Your task to perform on an android device: turn on javascript in the chrome app Image 0: 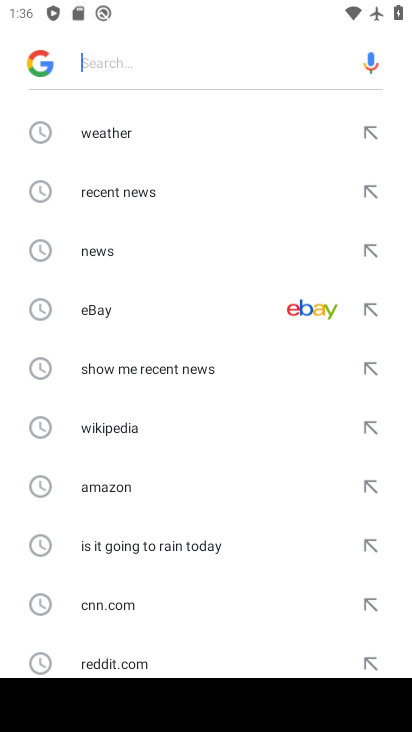
Step 0: press home button
Your task to perform on an android device: turn on javascript in the chrome app Image 1: 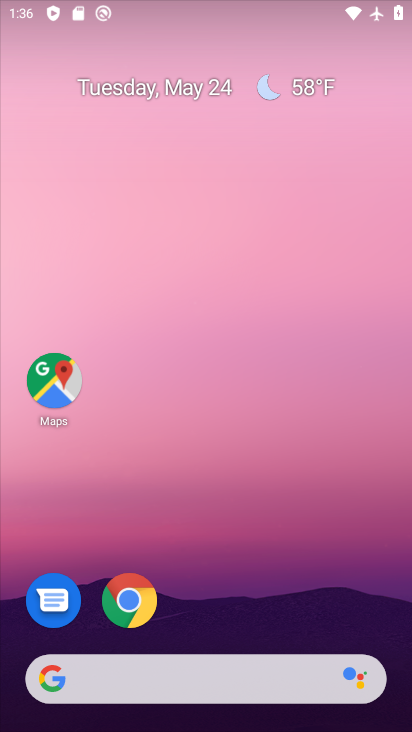
Step 1: drag from (290, 593) to (233, 58)
Your task to perform on an android device: turn on javascript in the chrome app Image 2: 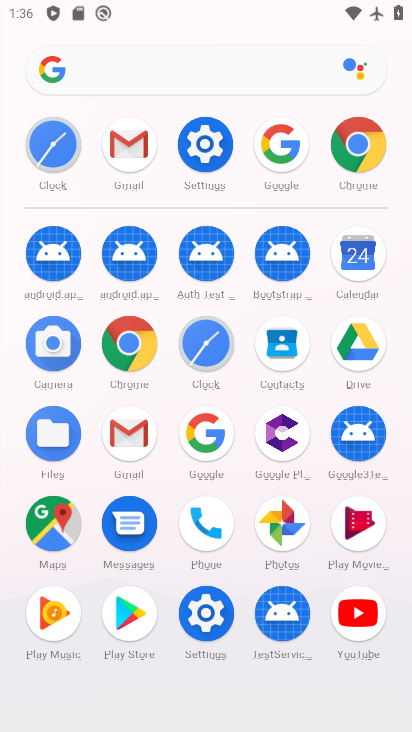
Step 2: click (134, 347)
Your task to perform on an android device: turn on javascript in the chrome app Image 3: 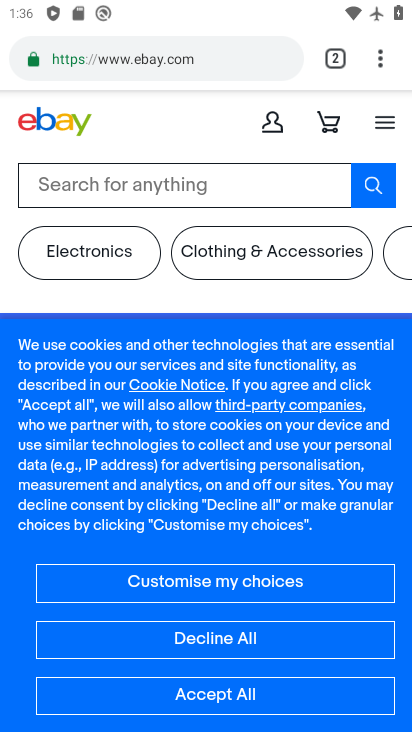
Step 3: click (382, 58)
Your task to perform on an android device: turn on javascript in the chrome app Image 4: 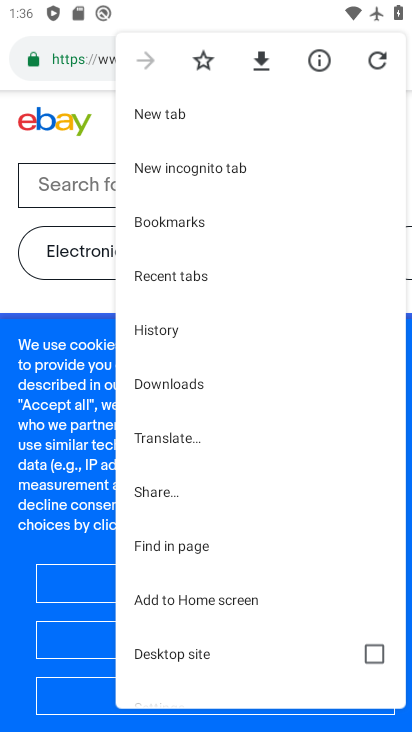
Step 4: drag from (255, 606) to (272, 301)
Your task to perform on an android device: turn on javascript in the chrome app Image 5: 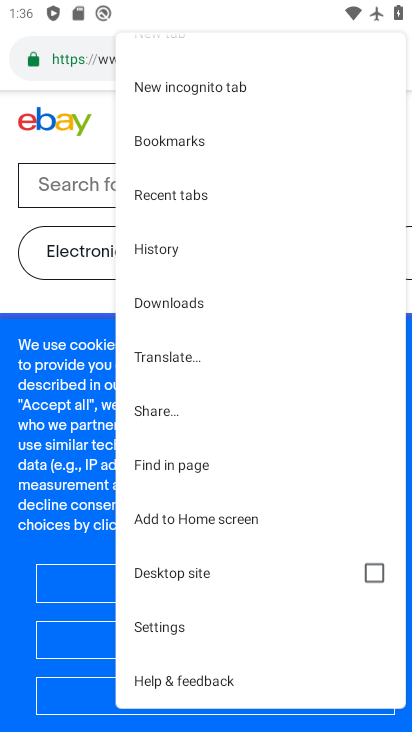
Step 5: click (197, 622)
Your task to perform on an android device: turn on javascript in the chrome app Image 6: 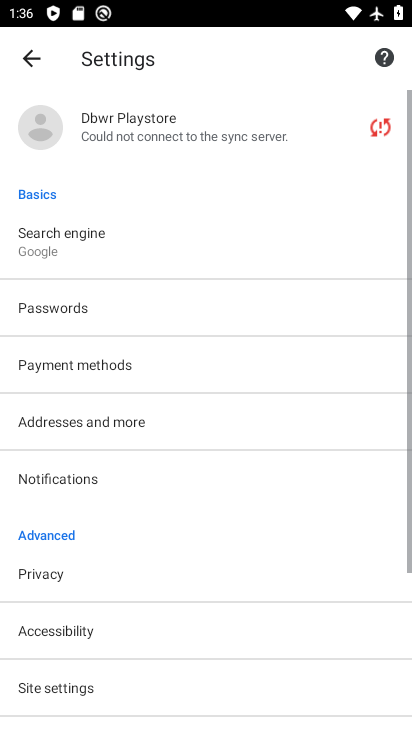
Step 6: drag from (193, 622) to (204, 287)
Your task to perform on an android device: turn on javascript in the chrome app Image 7: 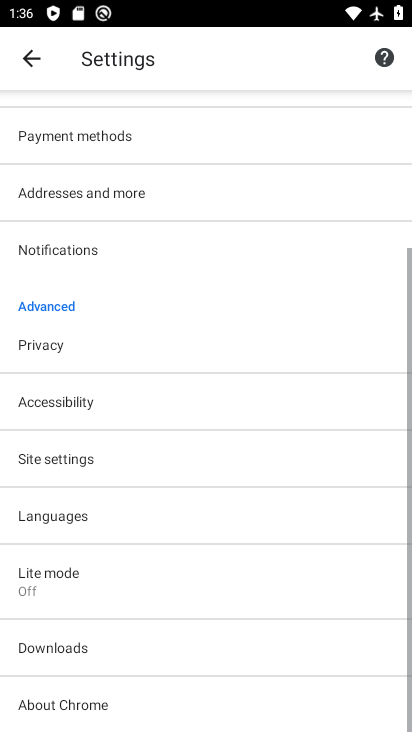
Step 7: click (98, 456)
Your task to perform on an android device: turn on javascript in the chrome app Image 8: 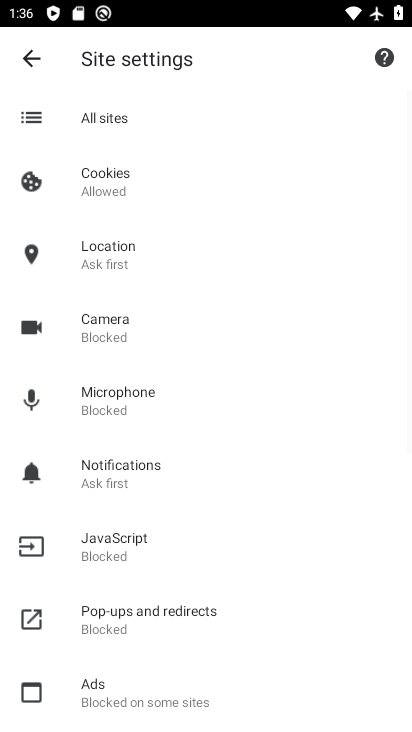
Step 8: click (124, 533)
Your task to perform on an android device: turn on javascript in the chrome app Image 9: 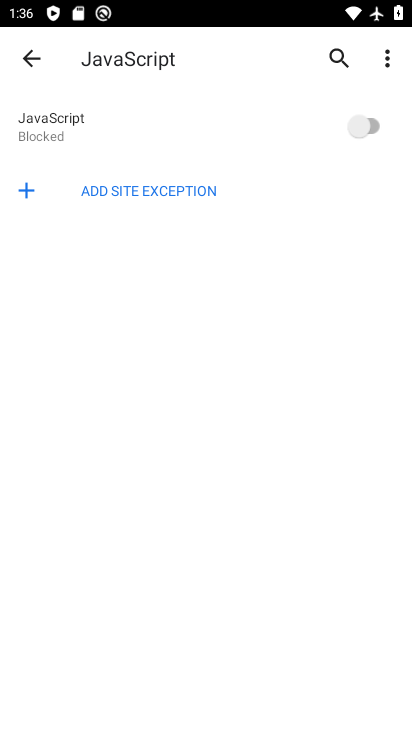
Step 9: click (364, 134)
Your task to perform on an android device: turn on javascript in the chrome app Image 10: 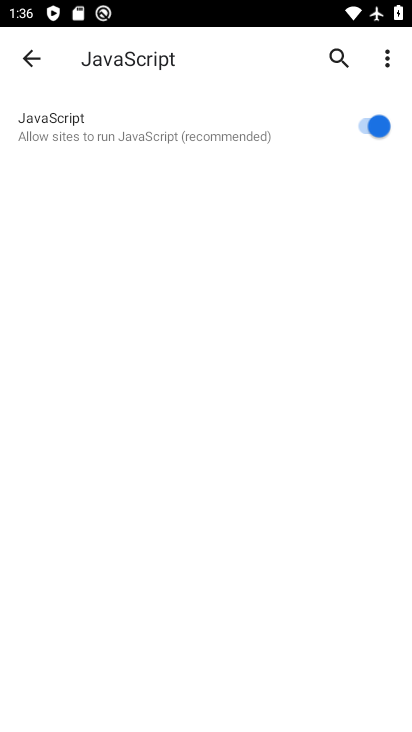
Step 10: task complete